Your task to perform on an android device: Open calendar and show me the first week of next month Image 0: 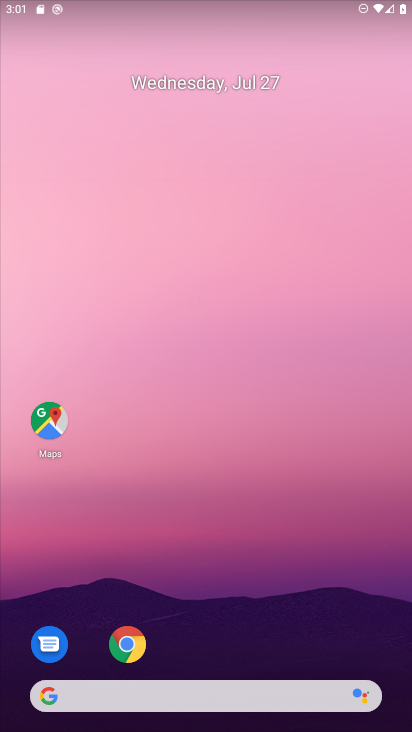
Step 0: drag from (254, 646) to (179, 19)
Your task to perform on an android device: Open calendar and show me the first week of next month Image 1: 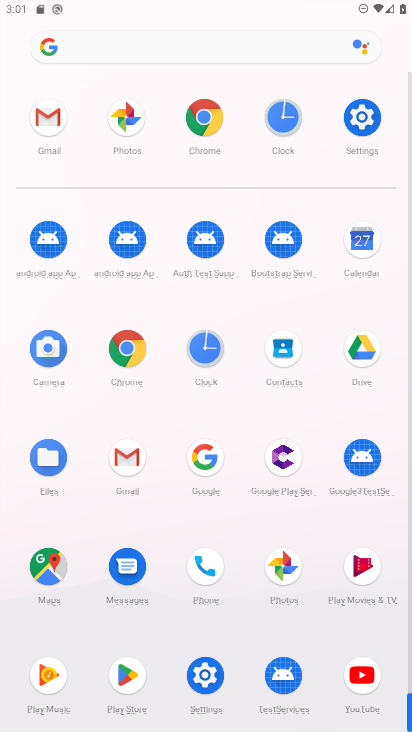
Step 1: click (362, 244)
Your task to perform on an android device: Open calendar and show me the first week of next month Image 2: 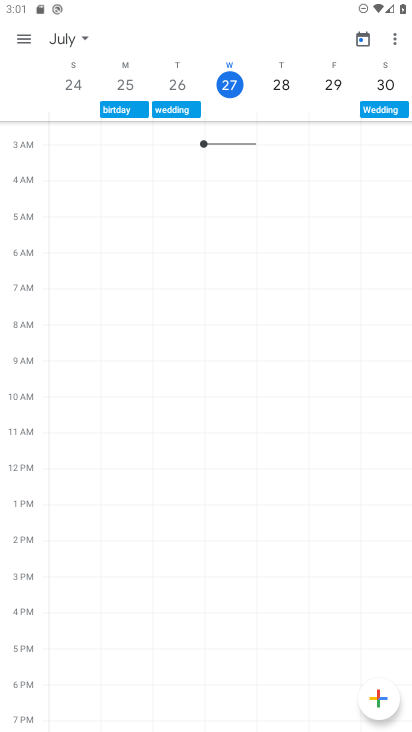
Step 2: task complete